Your task to perform on an android device: change keyboard looks Image 0: 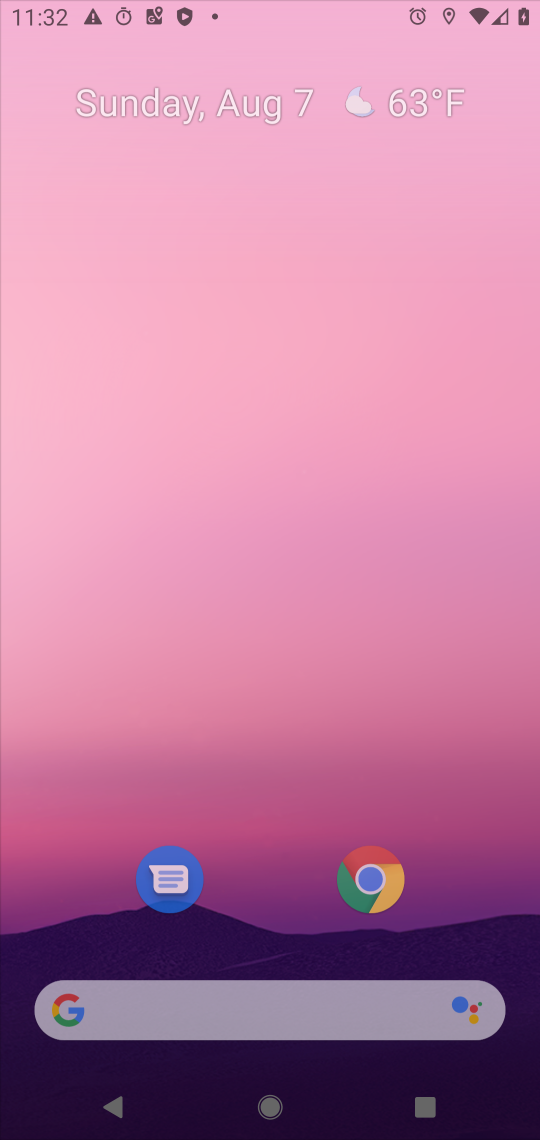
Step 0: press home button
Your task to perform on an android device: change keyboard looks Image 1: 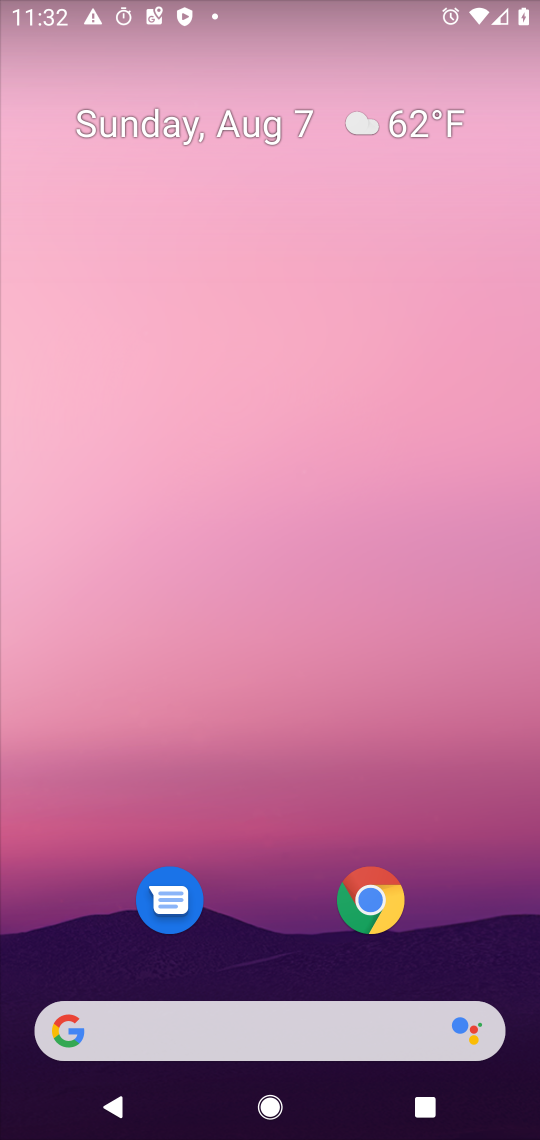
Step 1: drag from (285, 955) to (245, 168)
Your task to perform on an android device: change keyboard looks Image 2: 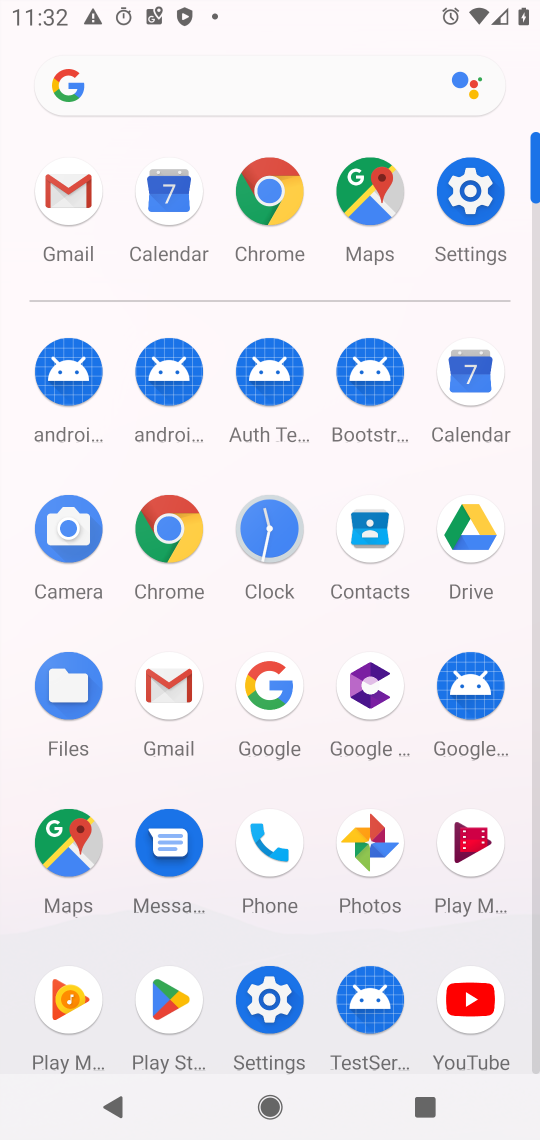
Step 2: click (475, 184)
Your task to perform on an android device: change keyboard looks Image 3: 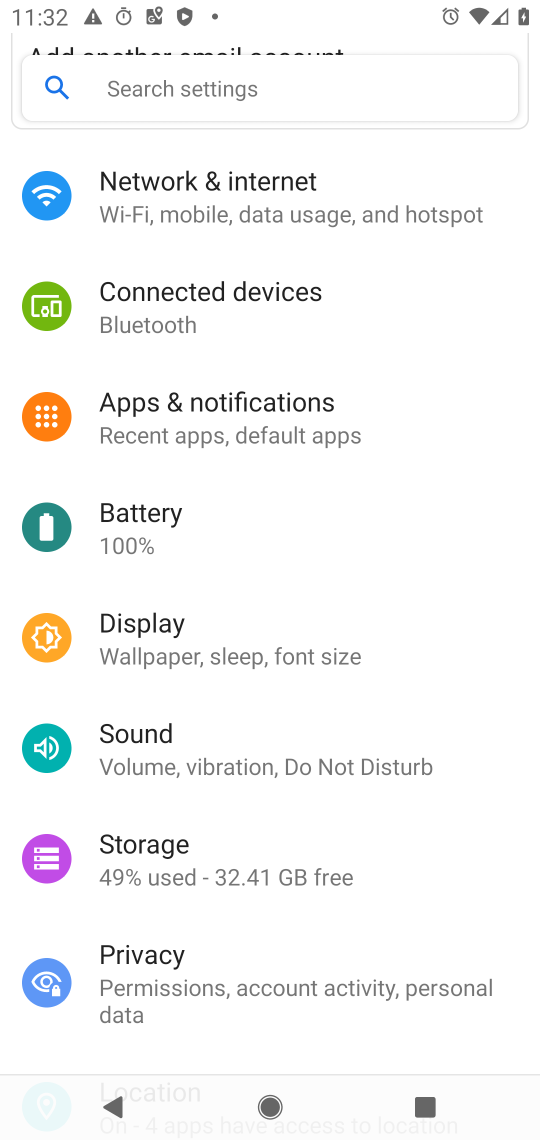
Step 3: drag from (266, 967) to (248, 311)
Your task to perform on an android device: change keyboard looks Image 4: 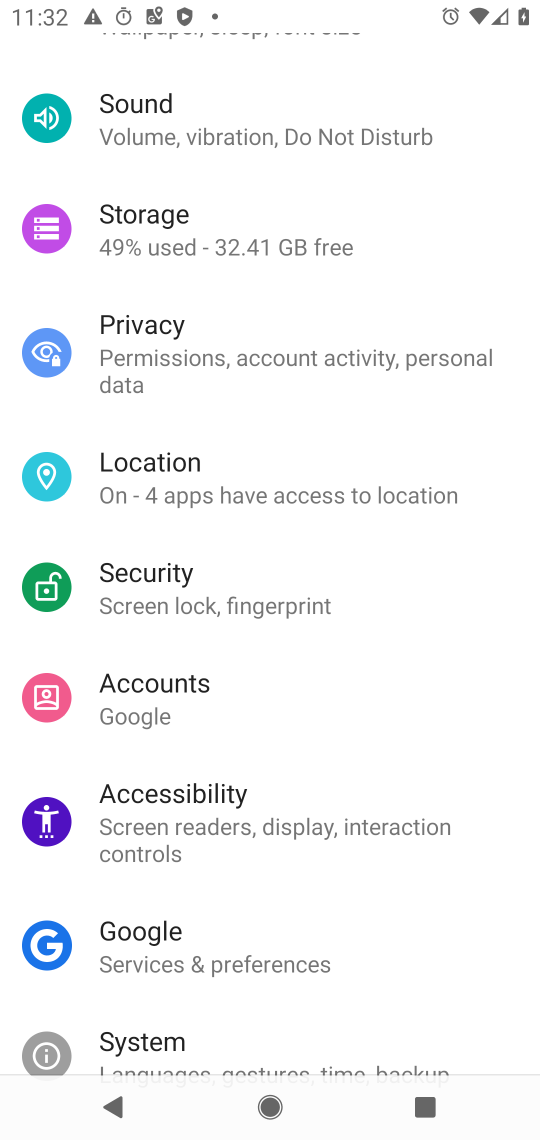
Step 4: drag from (266, 978) to (261, 558)
Your task to perform on an android device: change keyboard looks Image 5: 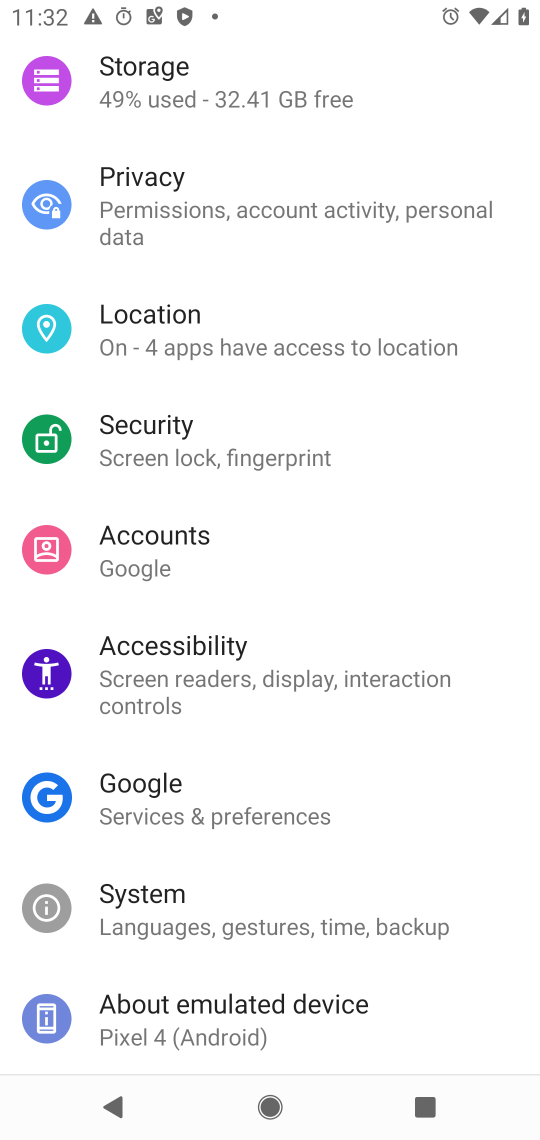
Step 5: click (197, 917)
Your task to perform on an android device: change keyboard looks Image 6: 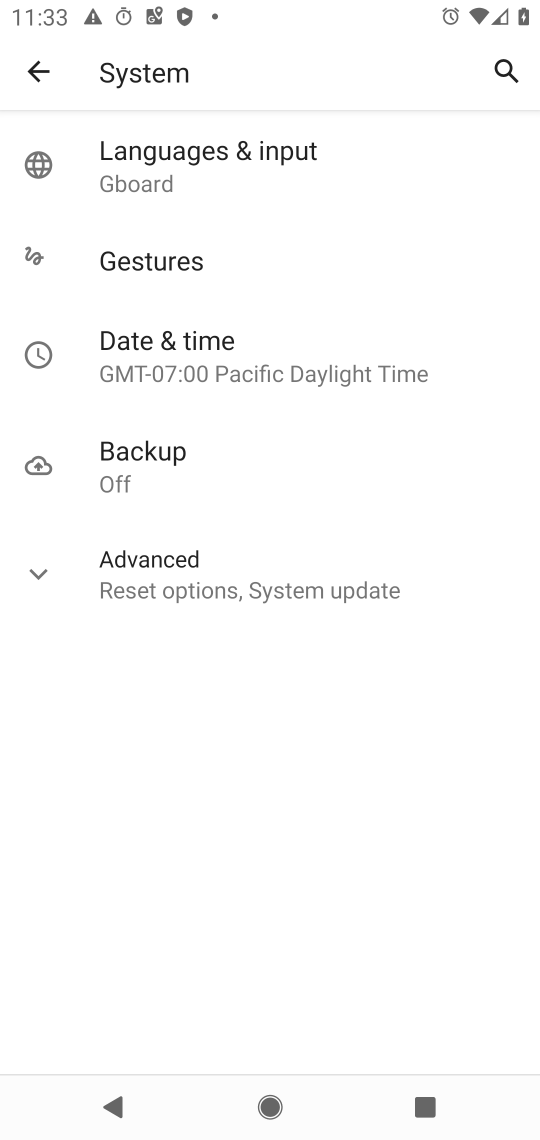
Step 6: click (30, 567)
Your task to perform on an android device: change keyboard looks Image 7: 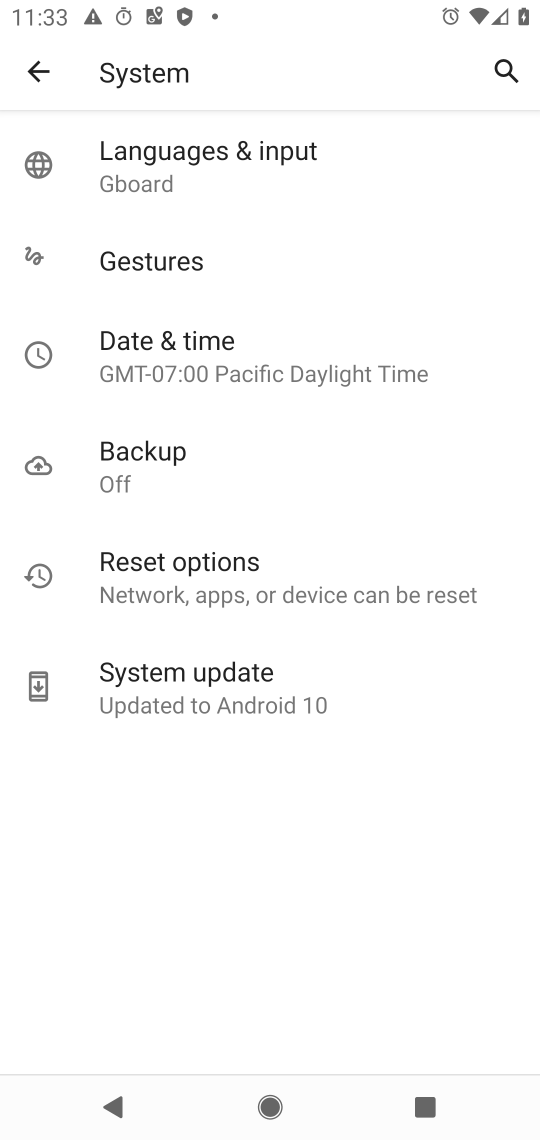
Step 7: click (122, 166)
Your task to perform on an android device: change keyboard looks Image 8: 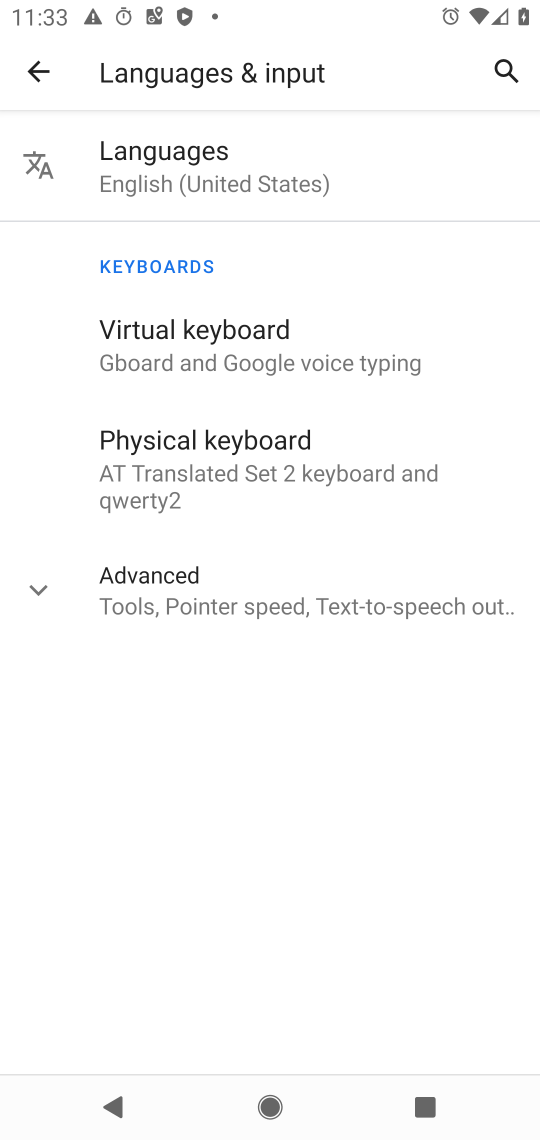
Step 8: click (298, 345)
Your task to perform on an android device: change keyboard looks Image 9: 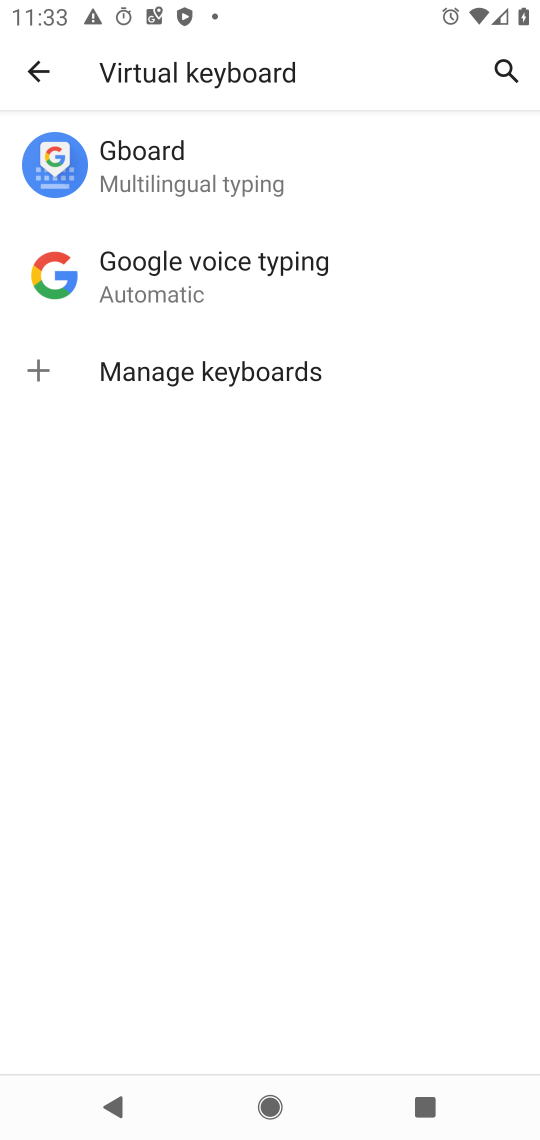
Step 9: click (223, 165)
Your task to perform on an android device: change keyboard looks Image 10: 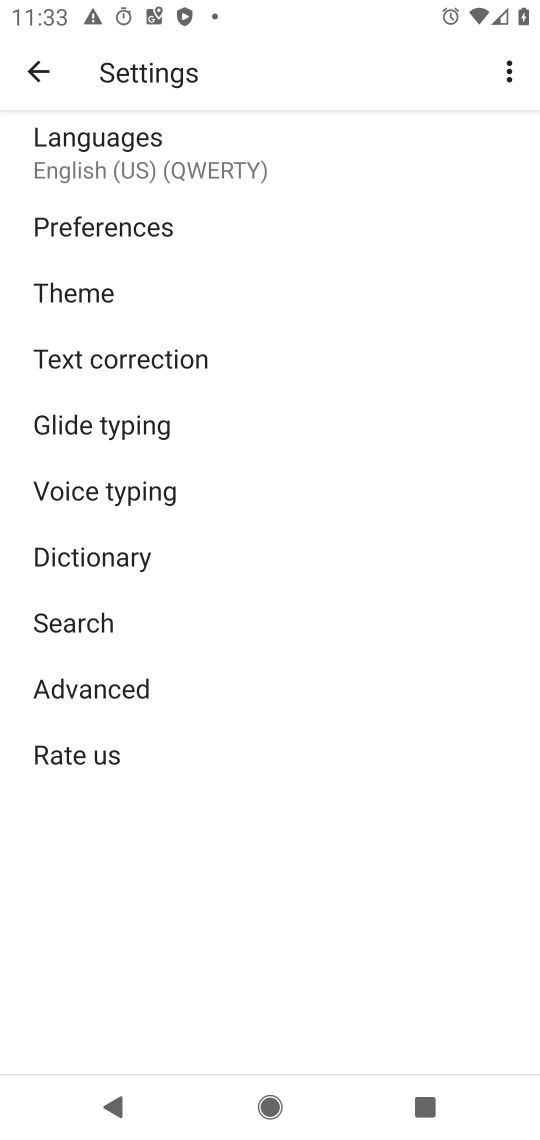
Step 10: click (139, 292)
Your task to perform on an android device: change keyboard looks Image 11: 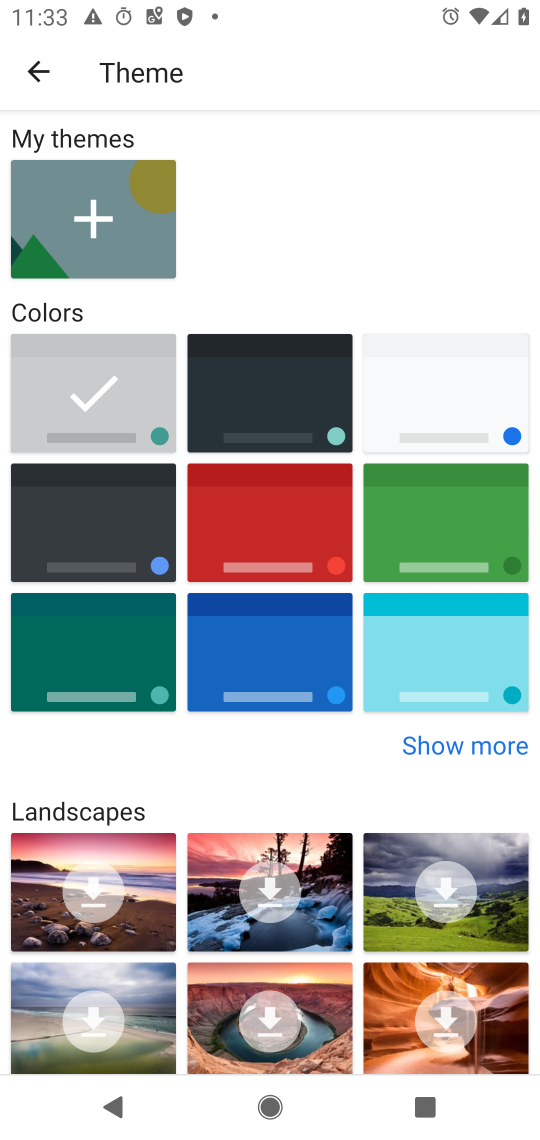
Step 11: click (271, 661)
Your task to perform on an android device: change keyboard looks Image 12: 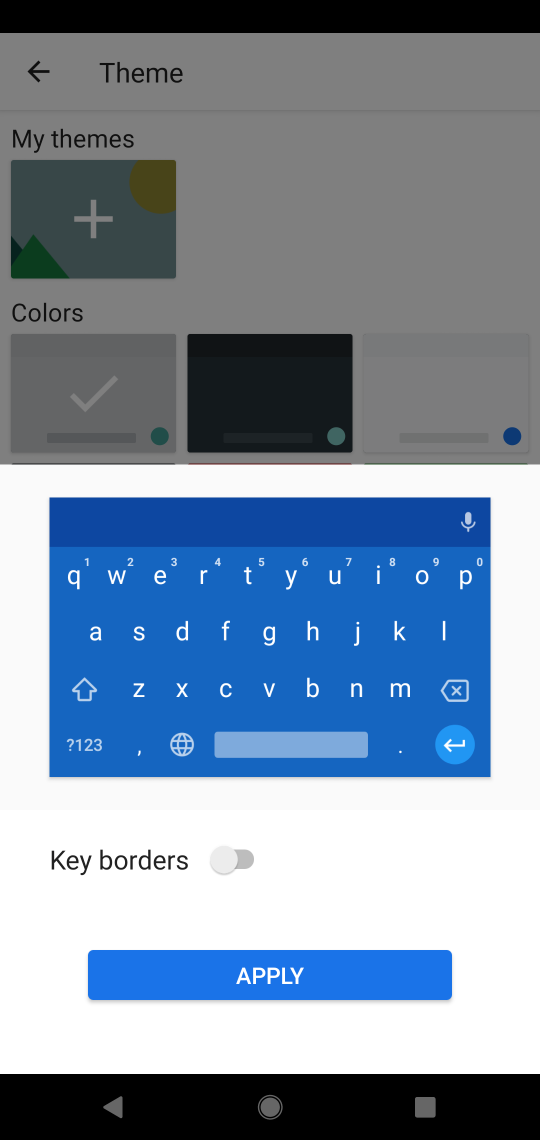
Step 12: click (286, 977)
Your task to perform on an android device: change keyboard looks Image 13: 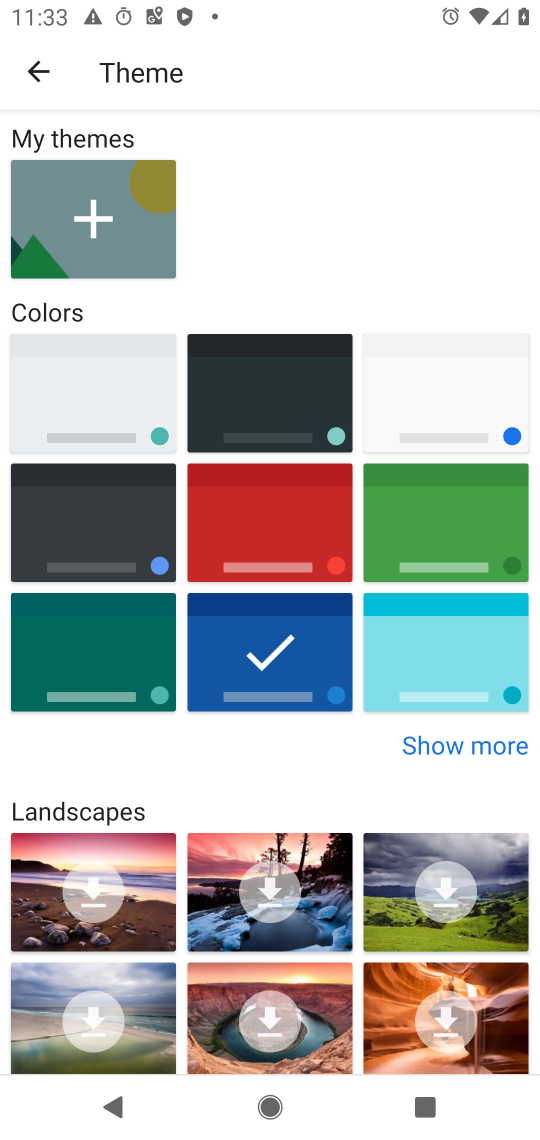
Step 13: task complete